Your task to perform on an android device: Search for vegetarian restaurants on Maps Image 0: 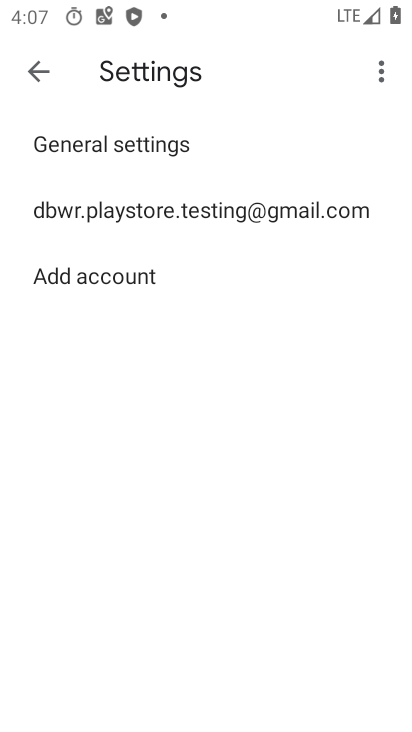
Step 0: click (406, 442)
Your task to perform on an android device: Search for vegetarian restaurants on Maps Image 1: 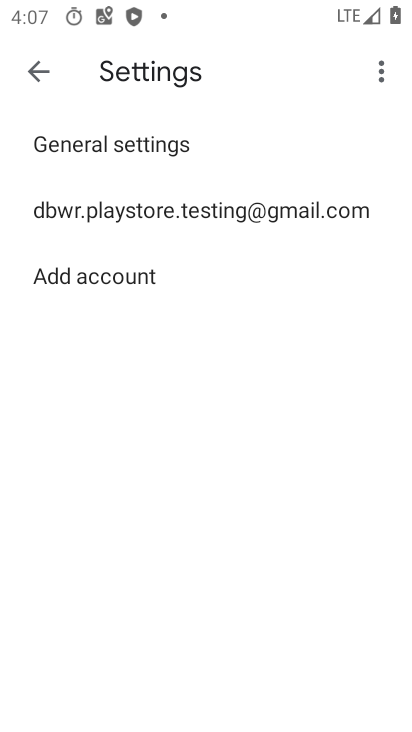
Step 1: press home button
Your task to perform on an android device: Search for vegetarian restaurants on Maps Image 2: 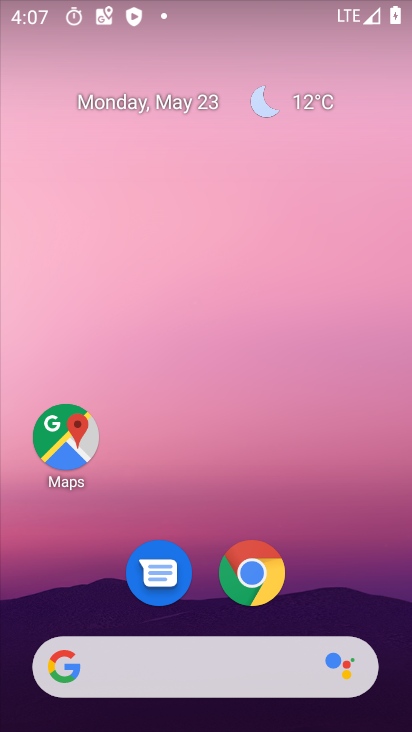
Step 2: click (58, 447)
Your task to perform on an android device: Search for vegetarian restaurants on Maps Image 3: 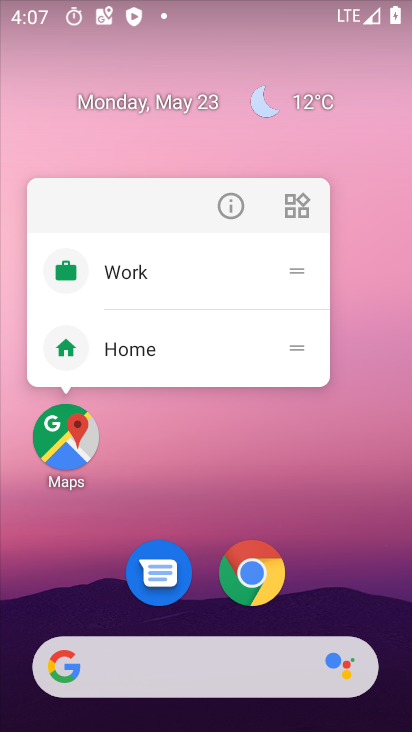
Step 3: click (56, 443)
Your task to perform on an android device: Search for vegetarian restaurants on Maps Image 4: 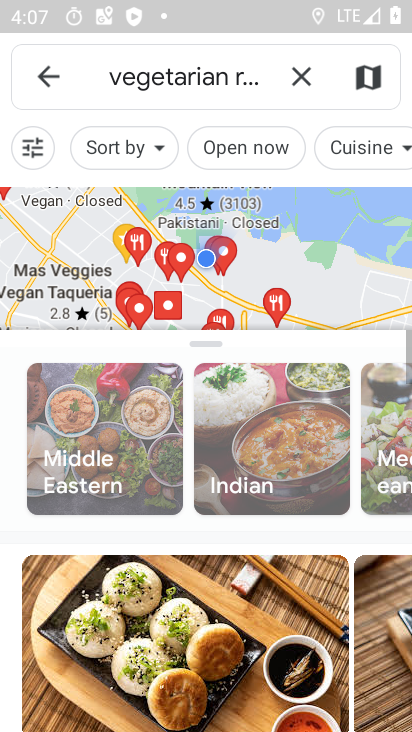
Step 4: task complete